Your task to perform on an android device: Open the calendar and show me this week's events Image 0: 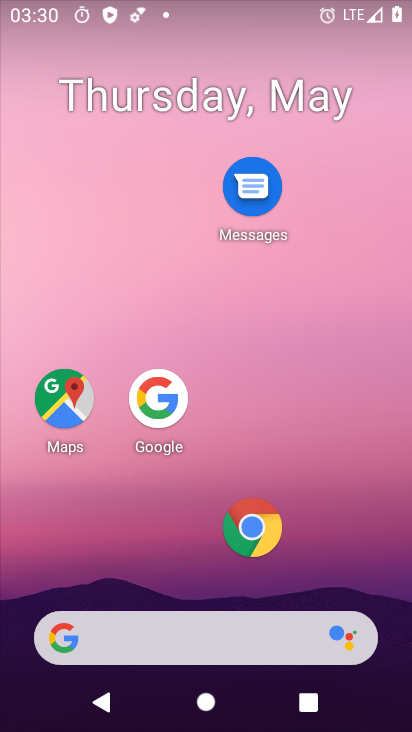
Step 0: drag from (180, 580) to (180, 208)
Your task to perform on an android device: Open the calendar and show me this week's events Image 1: 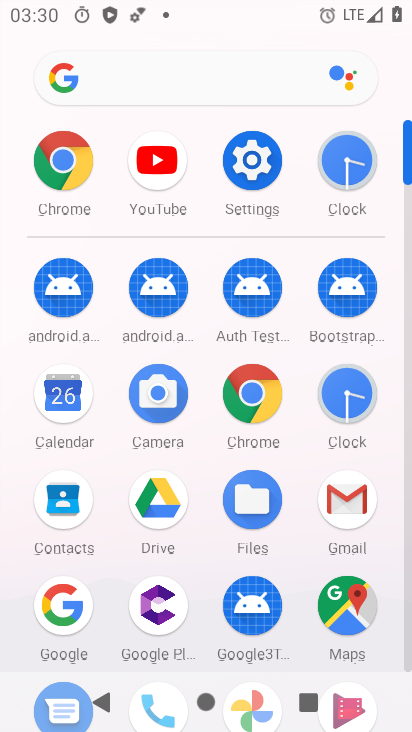
Step 1: click (61, 396)
Your task to perform on an android device: Open the calendar and show me this week's events Image 2: 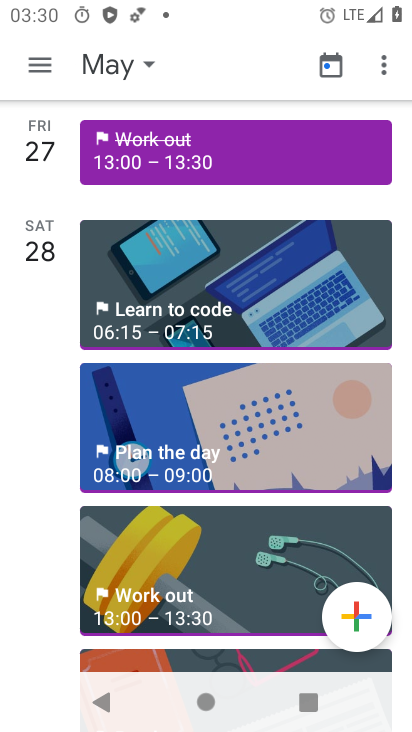
Step 2: click (135, 80)
Your task to perform on an android device: Open the calendar and show me this week's events Image 3: 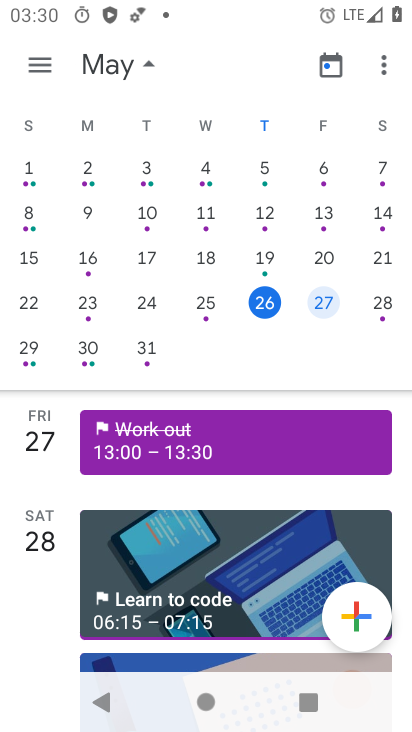
Step 3: click (364, 304)
Your task to perform on an android device: Open the calendar and show me this week's events Image 4: 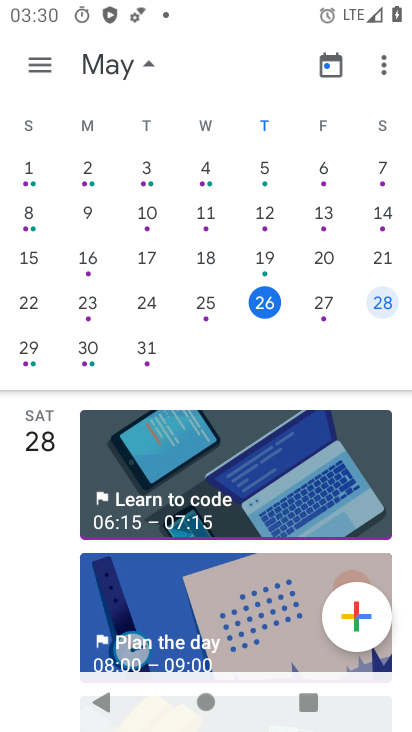
Step 4: drag from (268, 502) to (283, 187)
Your task to perform on an android device: Open the calendar and show me this week's events Image 5: 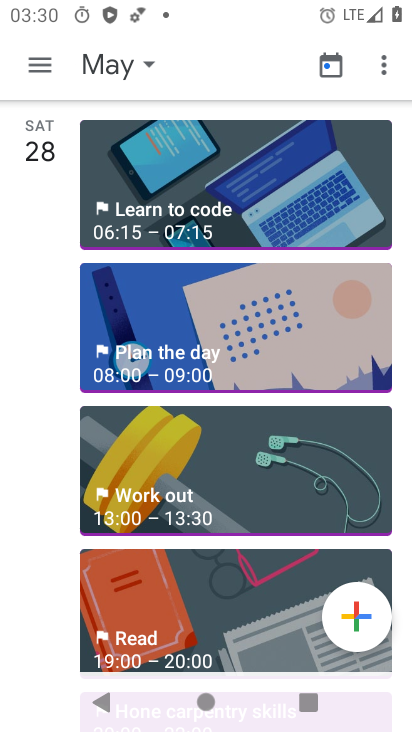
Step 5: drag from (229, 580) to (255, 232)
Your task to perform on an android device: Open the calendar and show me this week's events Image 6: 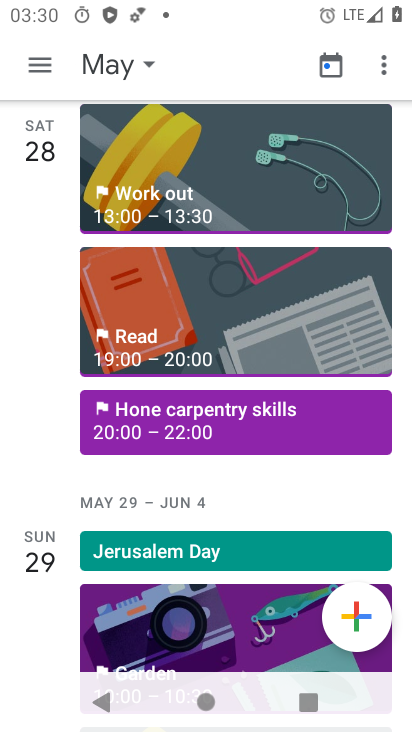
Step 6: click (116, 65)
Your task to perform on an android device: Open the calendar and show me this week's events Image 7: 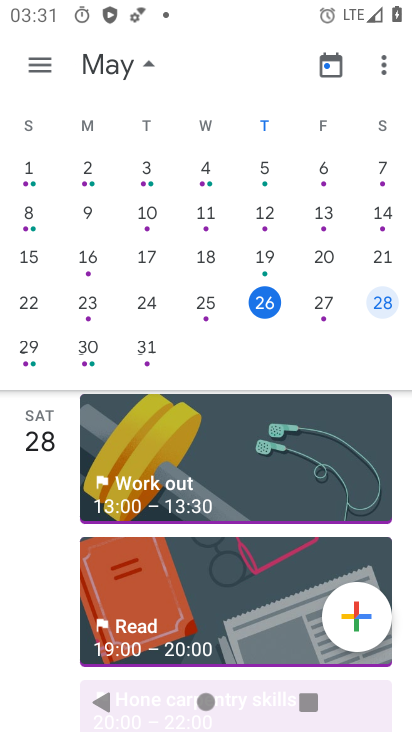
Step 7: task complete